Your task to perform on an android device: Go to Google maps Image 0: 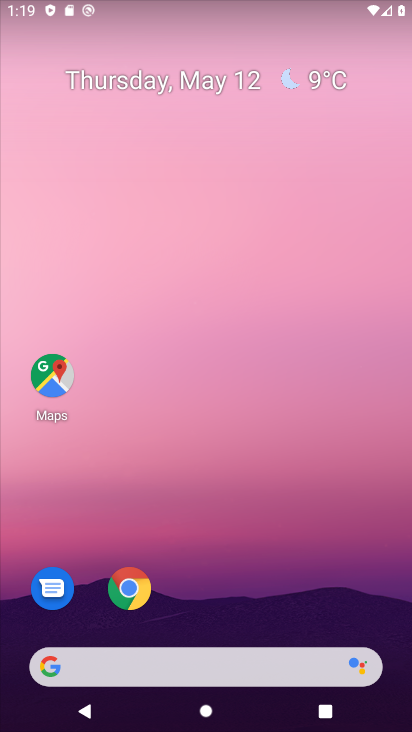
Step 0: drag from (357, 610) to (222, 94)
Your task to perform on an android device: Go to Google maps Image 1: 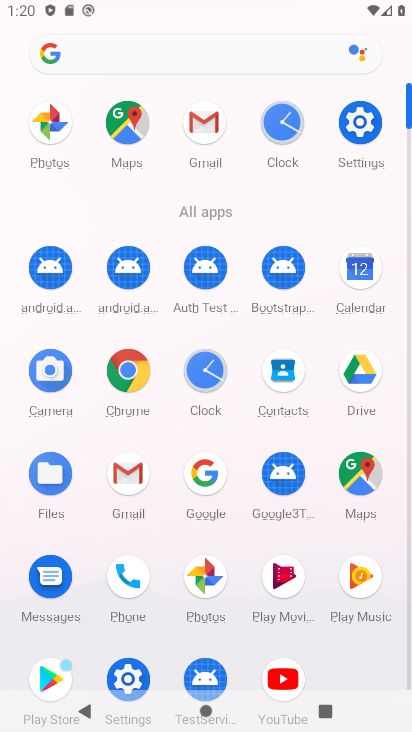
Step 1: click (202, 477)
Your task to perform on an android device: Go to Google maps Image 2: 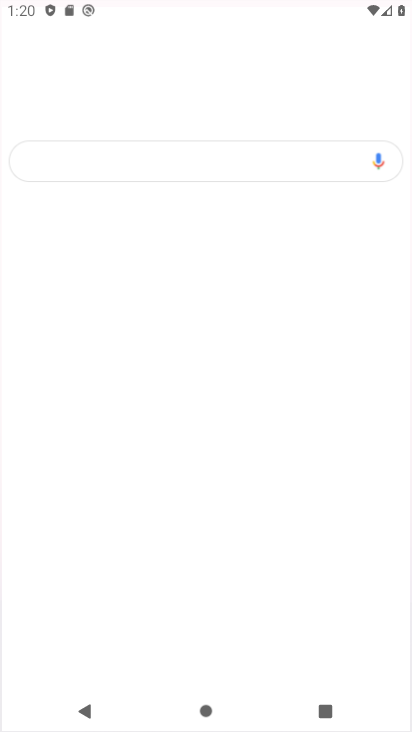
Step 2: click (222, 476)
Your task to perform on an android device: Go to Google maps Image 3: 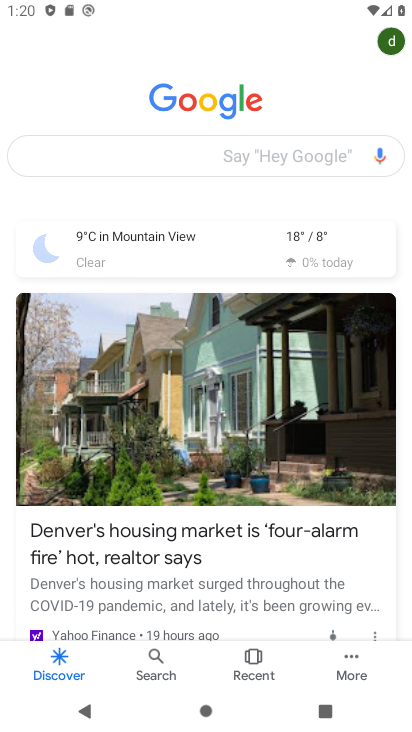
Step 3: task complete